Your task to perform on an android device: check out phone information Image 0: 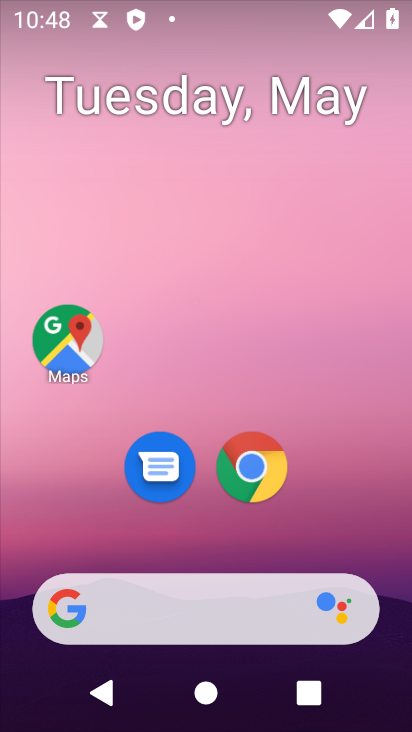
Step 0: drag from (402, 600) to (252, 79)
Your task to perform on an android device: check out phone information Image 1: 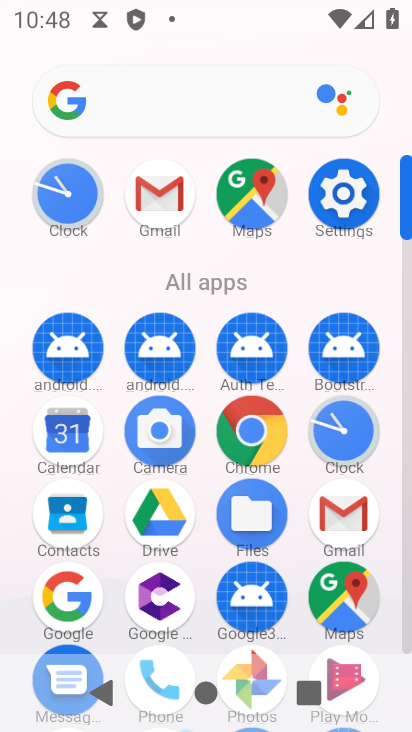
Step 1: click (343, 202)
Your task to perform on an android device: check out phone information Image 2: 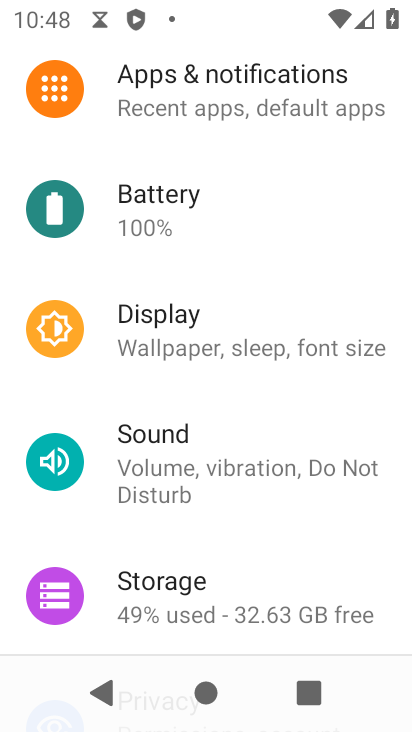
Step 2: drag from (291, 510) to (257, 178)
Your task to perform on an android device: check out phone information Image 3: 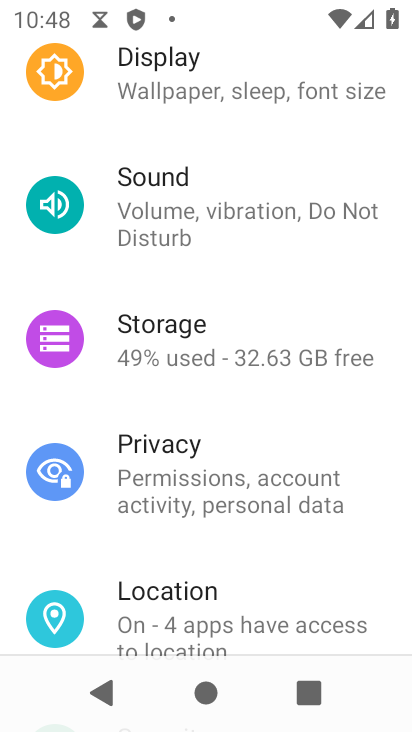
Step 3: drag from (269, 536) to (250, 158)
Your task to perform on an android device: check out phone information Image 4: 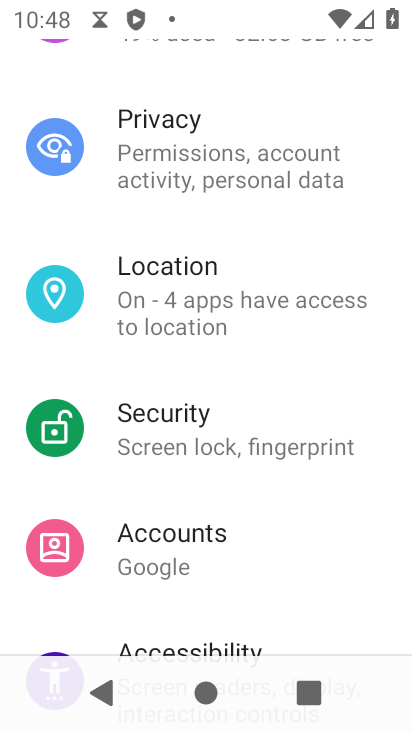
Step 4: drag from (264, 619) to (240, 229)
Your task to perform on an android device: check out phone information Image 5: 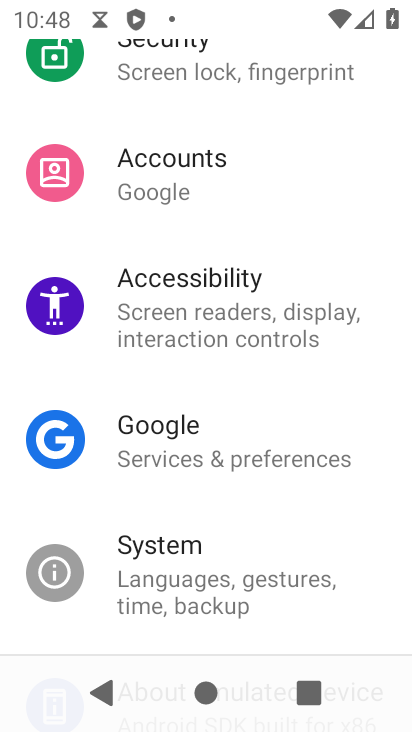
Step 5: drag from (272, 588) to (236, 199)
Your task to perform on an android device: check out phone information Image 6: 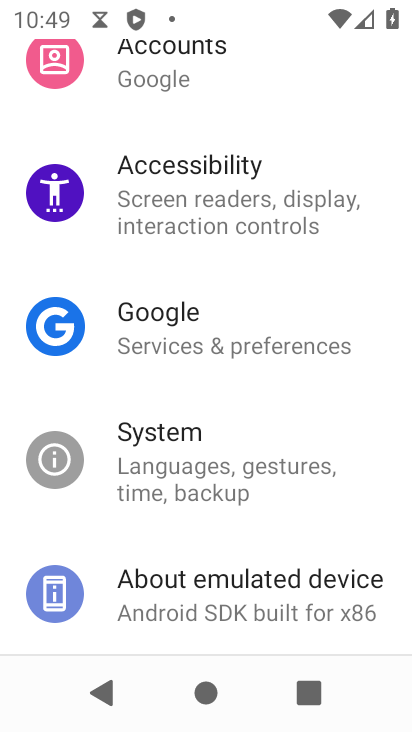
Step 6: click (287, 615)
Your task to perform on an android device: check out phone information Image 7: 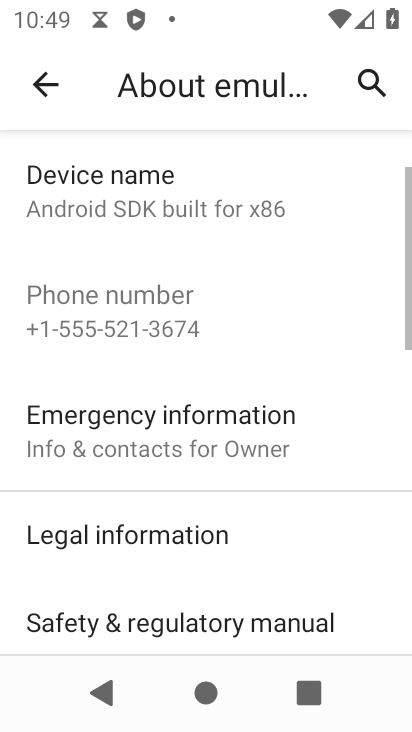
Step 7: task complete